Your task to perform on an android device: toggle priority inbox in the gmail app Image 0: 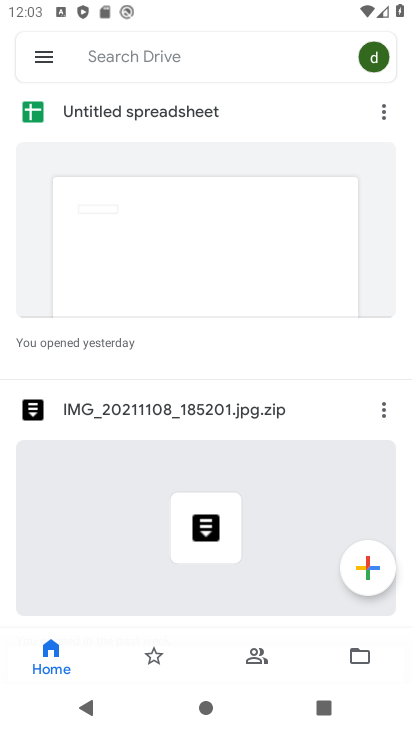
Step 0: press home button
Your task to perform on an android device: toggle priority inbox in the gmail app Image 1: 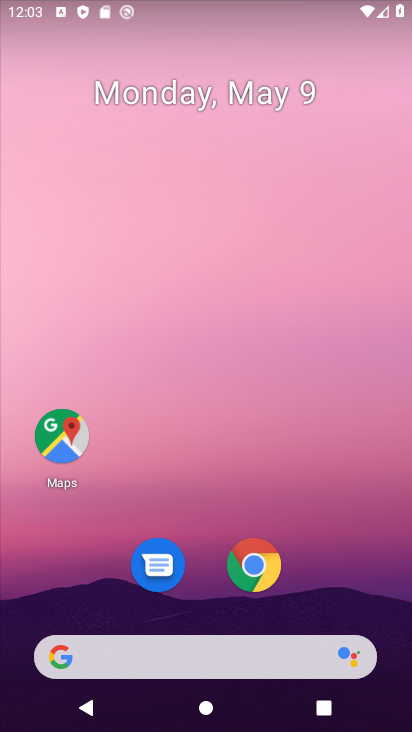
Step 1: drag from (261, 623) to (253, 337)
Your task to perform on an android device: toggle priority inbox in the gmail app Image 2: 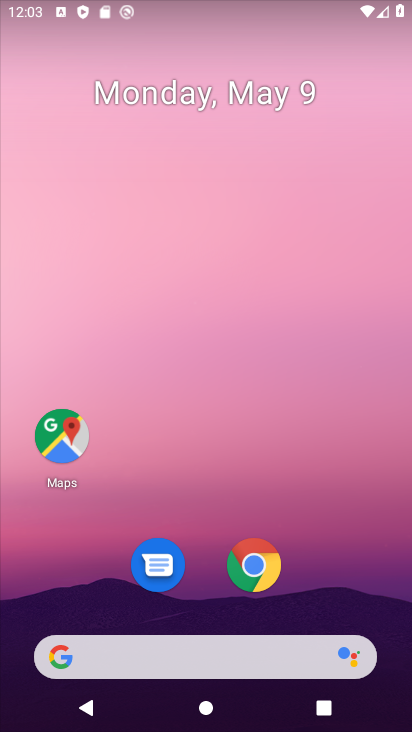
Step 2: drag from (242, 593) to (270, 269)
Your task to perform on an android device: toggle priority inbox in the gmail app Image 3: 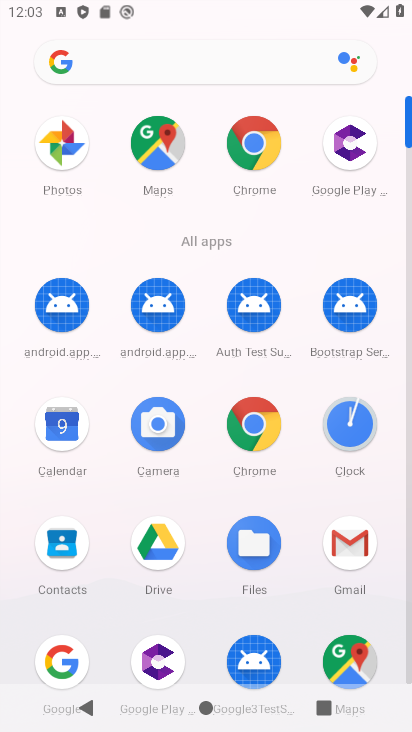
Step 3: click (345, 554)
Your task to perform on an android device: toggle priority inbox in the gmail app Image 4: 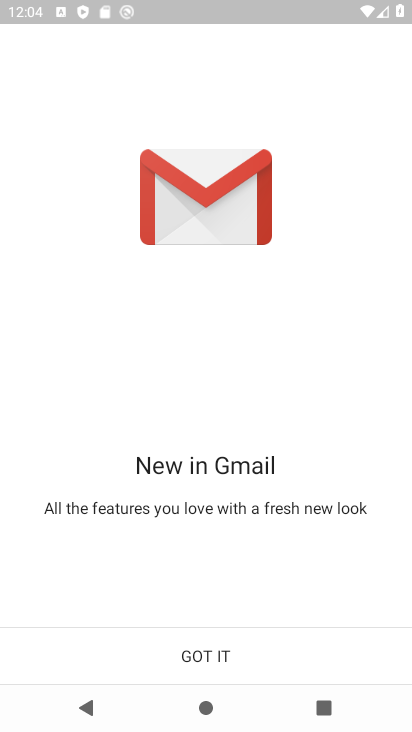
Step 4: click (242, 650)
Your task to perform on an android device: toggle priority inbox in the gmail app Image 5: 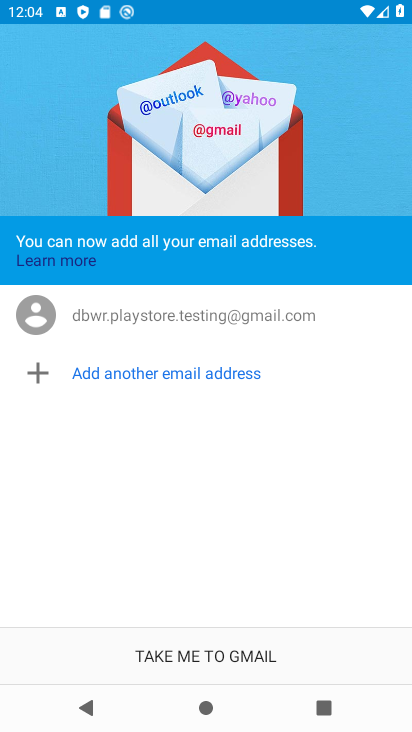
Step 5: click (242, 650)
Your task to perform on an android device: toggle priority inbox in the gmail app Image 6: 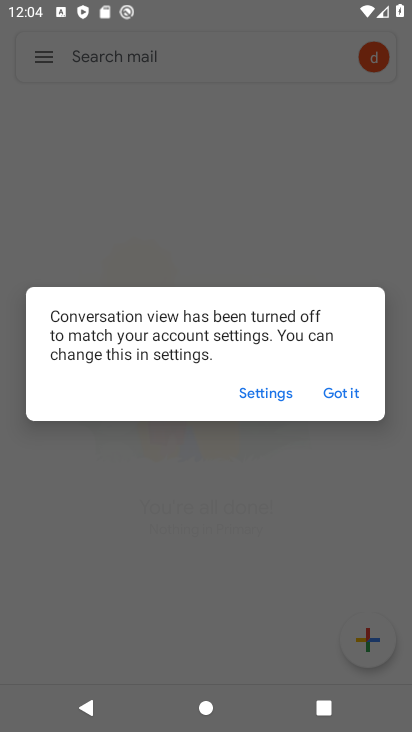
Step 6: click (351, 397)
Your task to perform on an android device: toggle priority inbox in the gmail app Image 7: 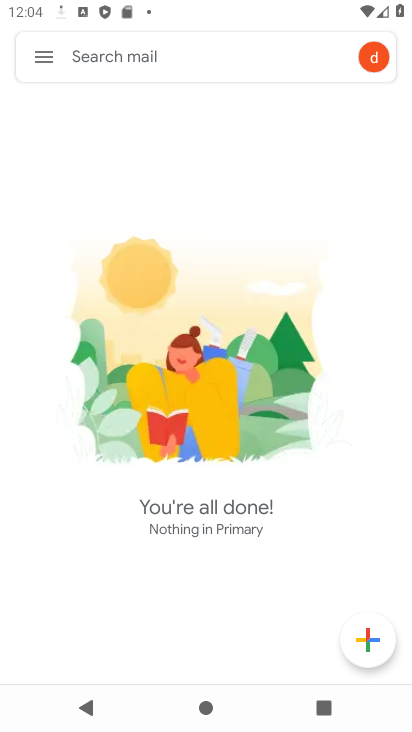
Step 7: click (42, 61)
Your task to perform on an android device: toggle priority inbox in the gmail app Image 8: 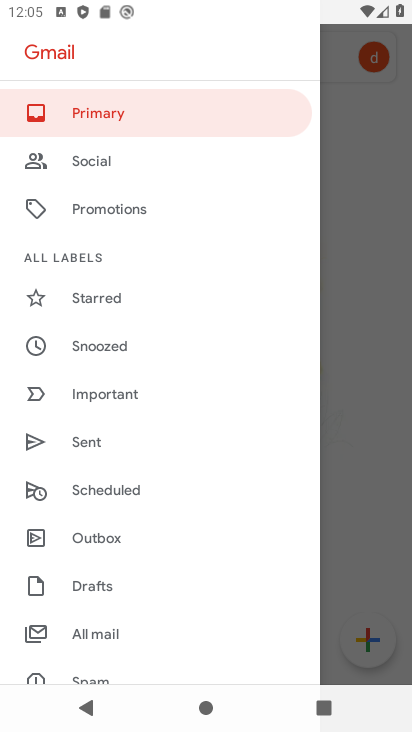
Step 8: drag from (195, 644) to (301, 92)
Your task to perform on an android device: toggle priority inbox in the gmail app Image 9: 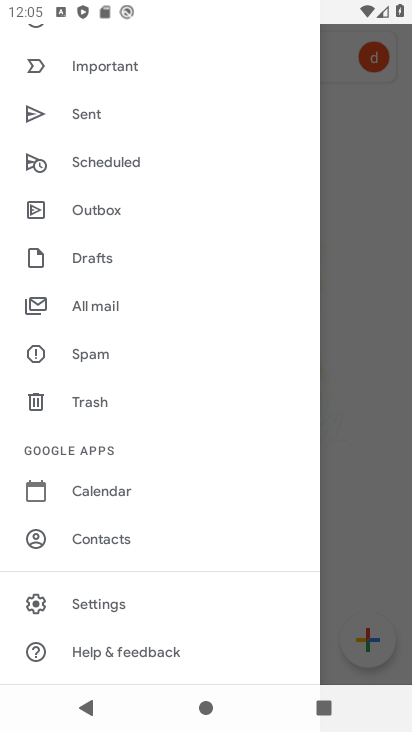
Step 9: click (97, 597)
Your task to perform on an android device: toggle priority inbox in the gmail app Image 10: 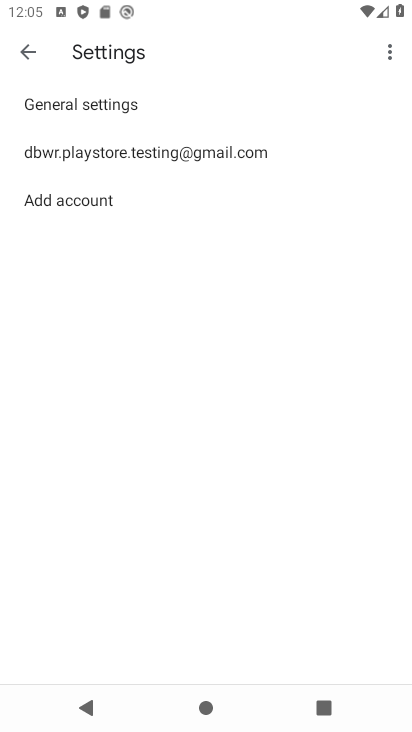
Step 10: click (140, 153)
Your task to perform on an android device: toggle priority inbox in the gmail app Image 11: 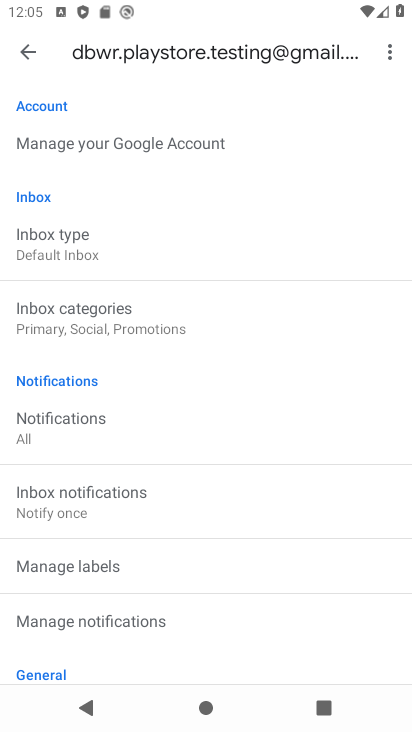
Step 11: click (112, 262)
Your task to perform on an android device: toggle priority inbox in the gmail app Image 12: 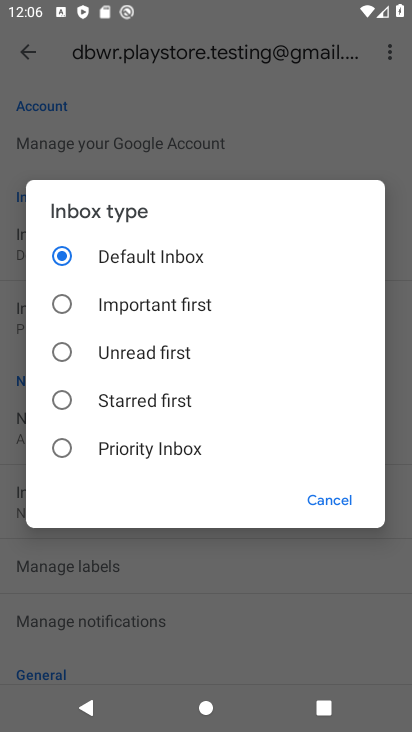
Step 12: click (122, 446)
Your task to perform on an android device: toggle priority inbox in the gmail app Image 13: 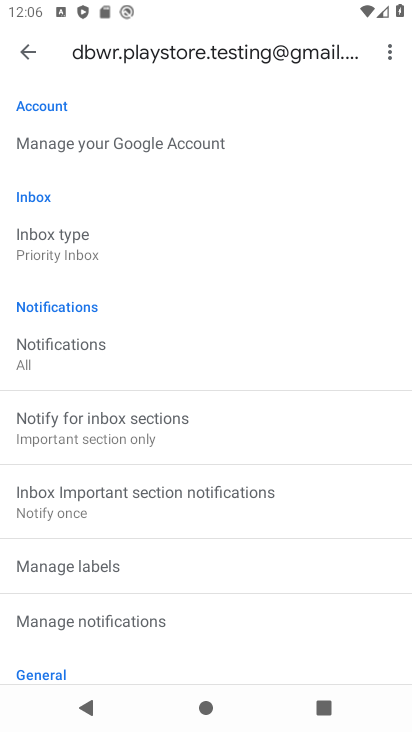
Step 13: task complete